Your task to perform on an android device: set the timer Image 0: 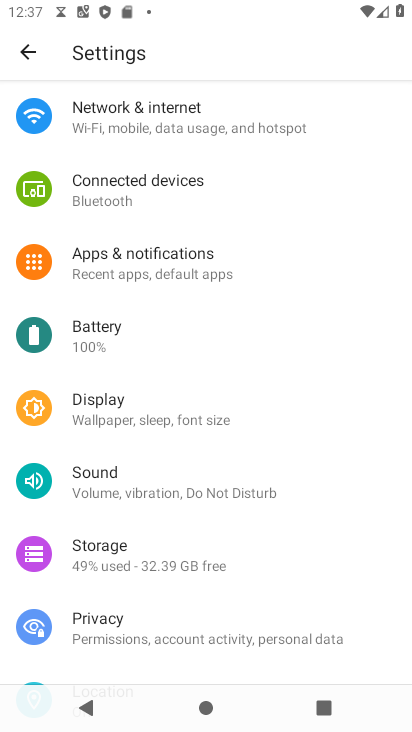
Step 0: press home button
Your task to perform on an android device: set the timer Image 1: 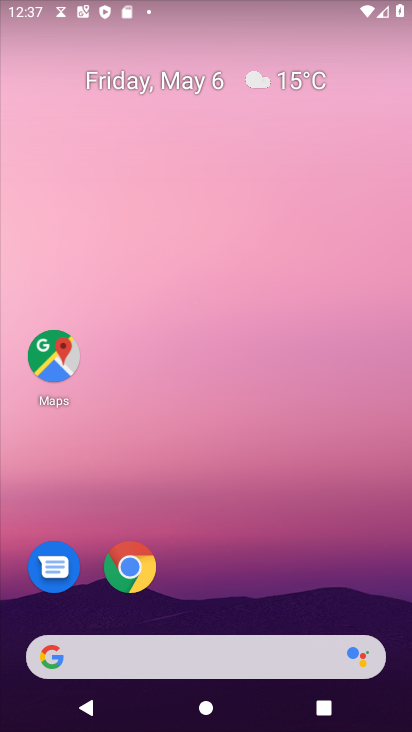
Step 1: drag from (336, 303) to (337, 146)
Your task to perform on an android device: set the timer Image 2: 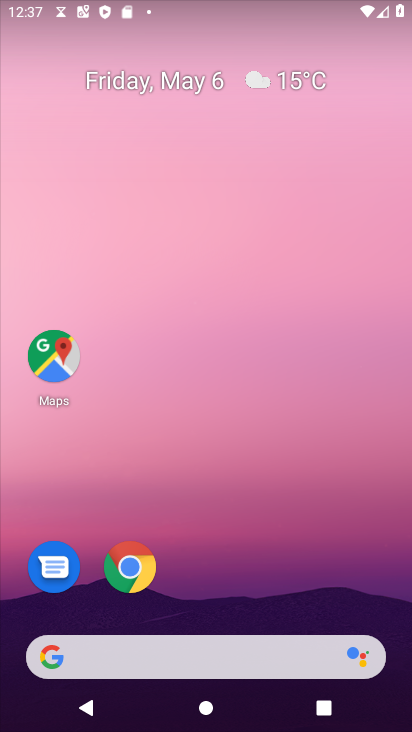
Step 2: drag from (284, 547) to (397, 38)
Your task to perform on an android device: set the timer Image 3: 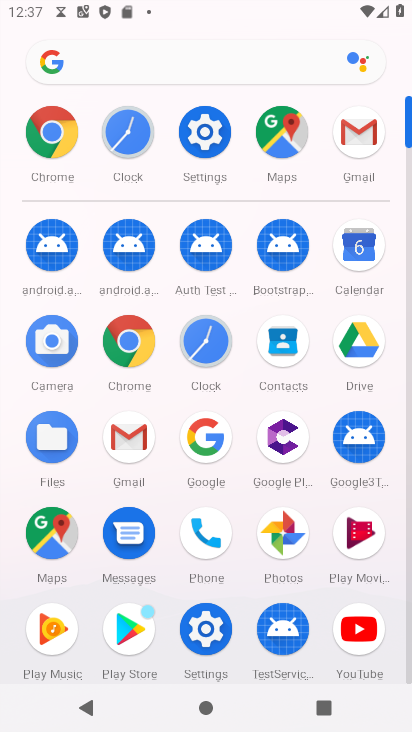
Step 3: click (119, 115)
Your task to perform on an android device: set the timer Image 4: 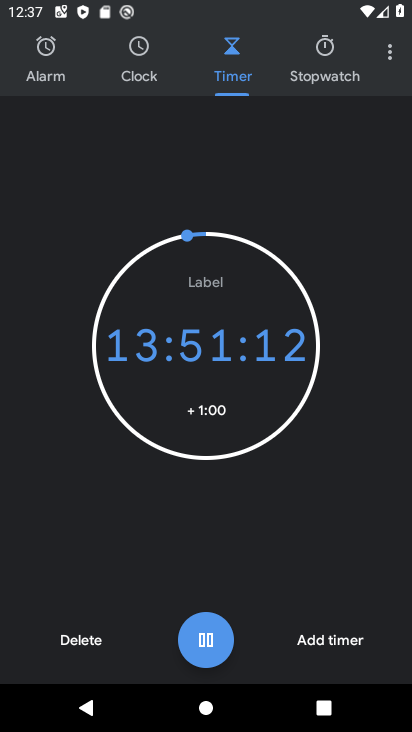
Step 4: task complete